Your task to perform on an android device: find which apps use the phone's location Image 0: 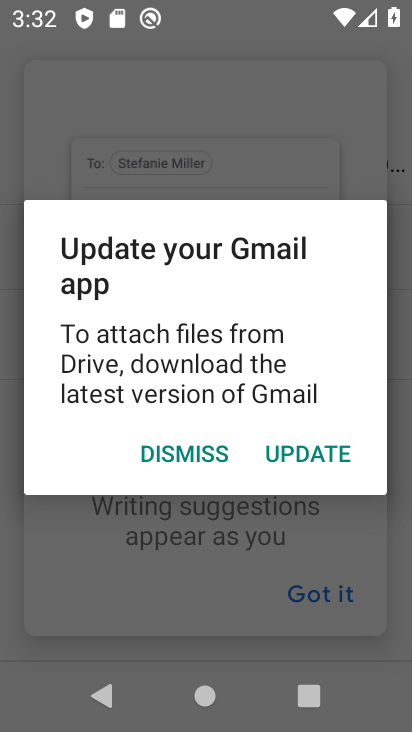
Step 0: press home button
Your task to perform on an android device: find which apps use the phone's location Image 1: 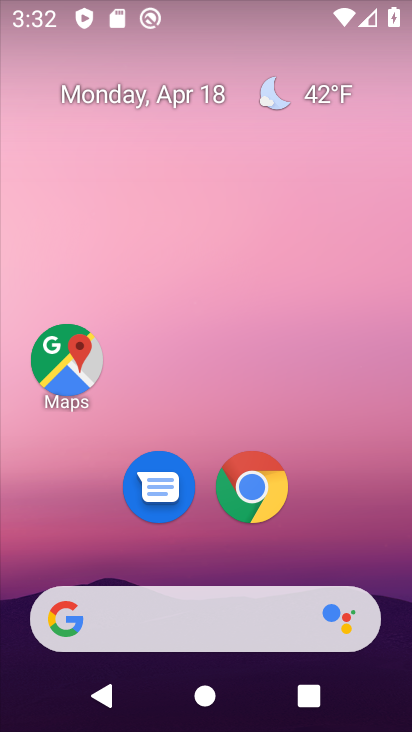
Step 1: drag from (205, 538) to (247, 43)
Your task to perform on an android device: find which apps use the phone's location Image 2: 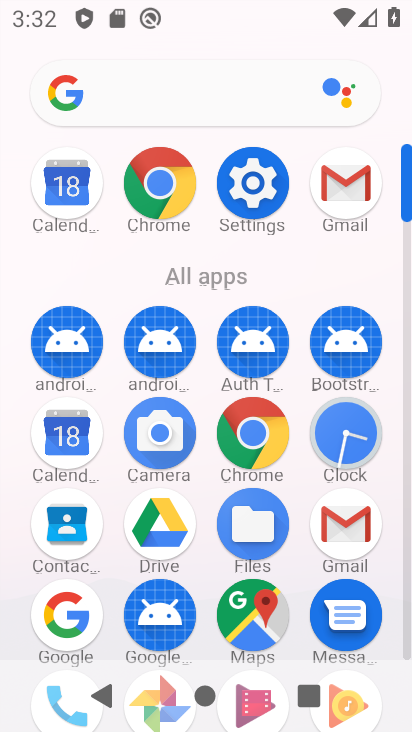
Step 2: click (263, 201)
Your task to perform on an android device: find which apps use the phone's location Image 3: 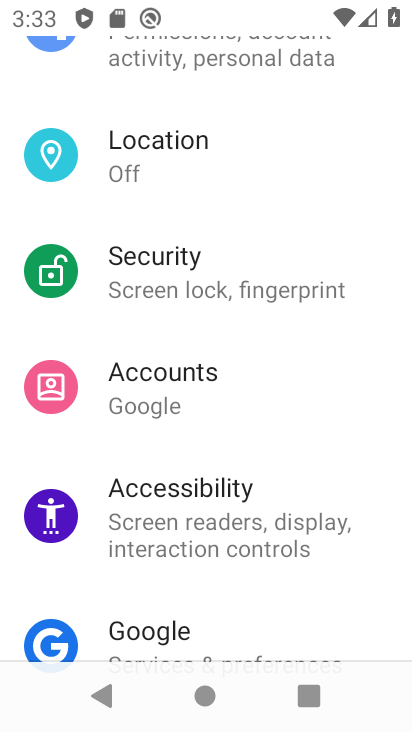
Step 3: click (193, 170)
Your task to perform on an android device: find which apps use the phone's location Image 4: 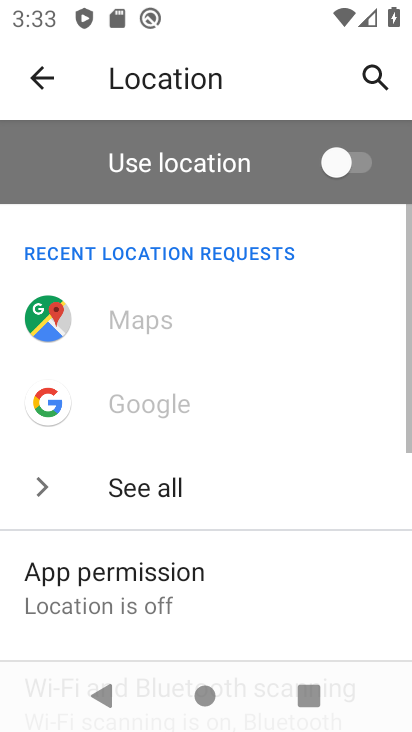
Step 4: click (146, 589)
Your task to perform on an android device: find which apps use the phone's location Image 5: 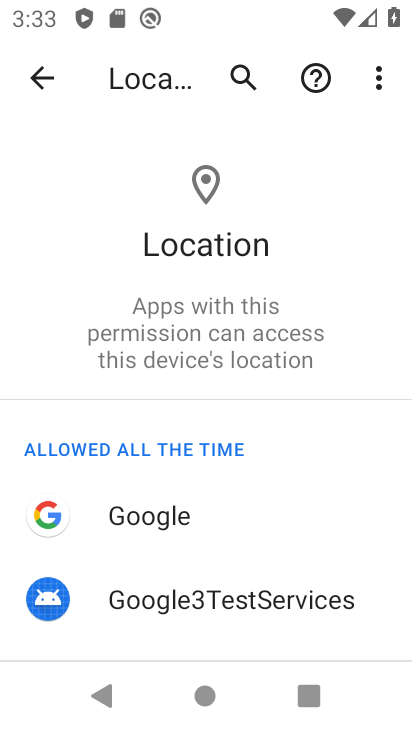
Step 5: task complete